Your task to perform on an android device: Do I have any events tomorrow? Image 0: 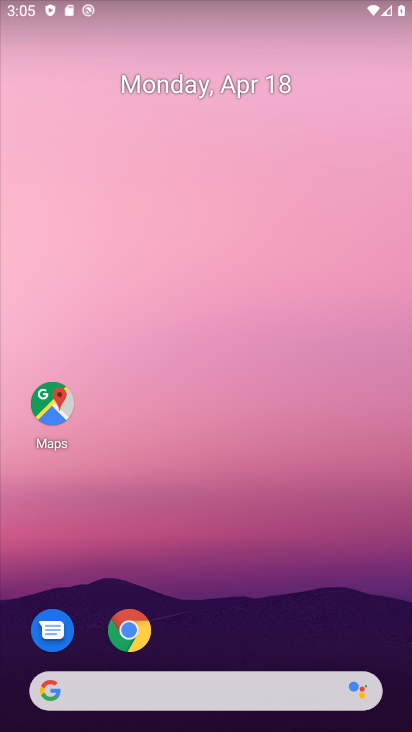
Step 0: drag from (278, 436) to (318, 144)
Your task to perform on an android device: Do I have any events tomorrow? Image 1: 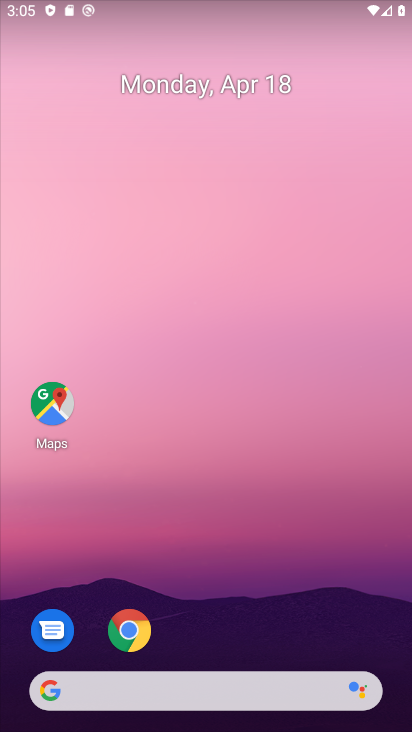
Step 1: drag from (332, 635) to (315, 126)
Your task to perform on an android device: Do I have any events tomorrow? Image 2: 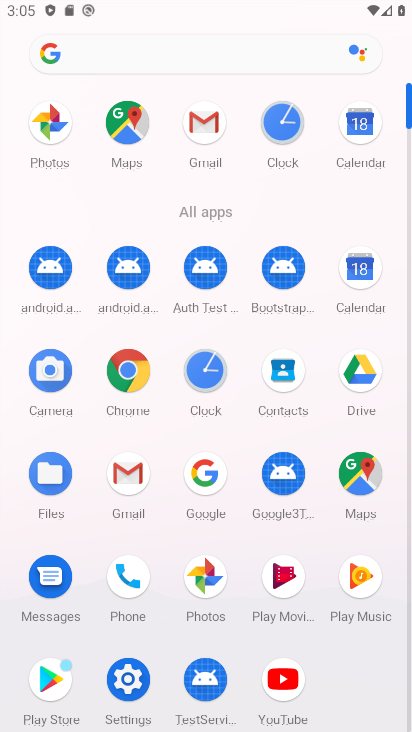
Step 2: click (354, 270)
Your task to perform on an android device: Do I have any events tomorrow? Image 3: 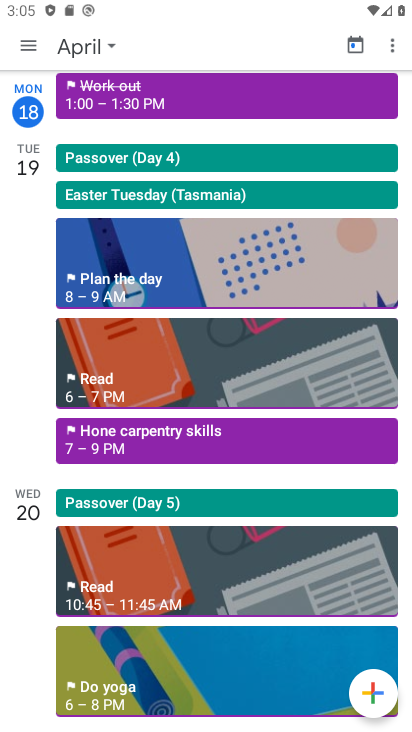
Step 3: task complete